Your task to perform on an android device: check storage Image 0: 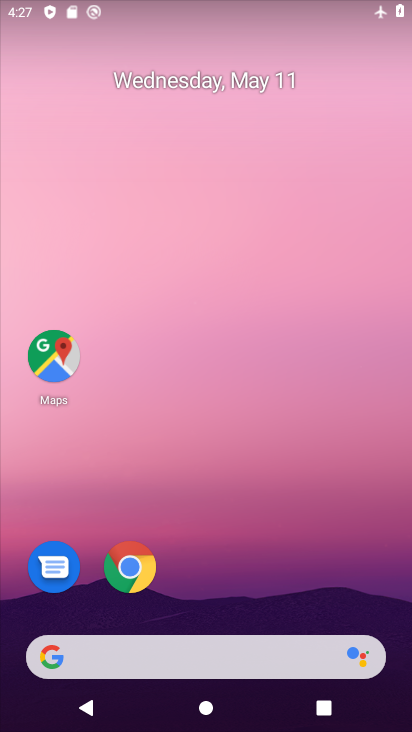
Step 0: drag from (197, 602) to (223, 165)
Your task to perform on an android device: check storage Image 1: 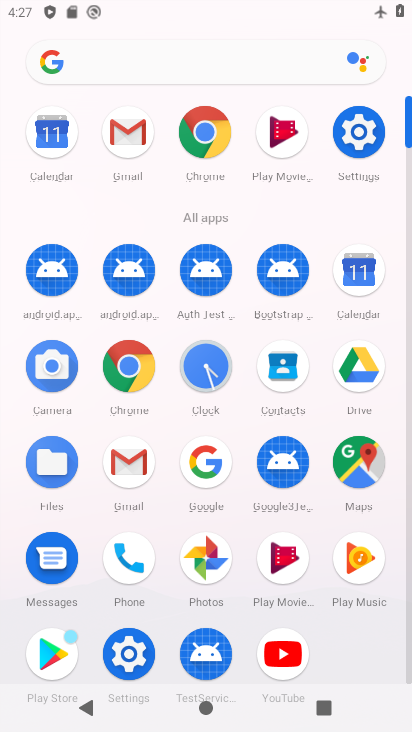
Step 1: click (355, 141)
Your task to perform on an android device: check storage Image 2: 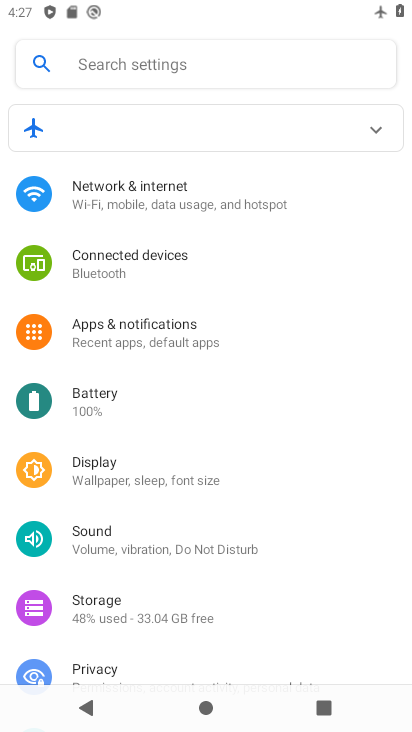
Step 2: click (154, 611)
Your task to perform on an android device: check storage Image 3: 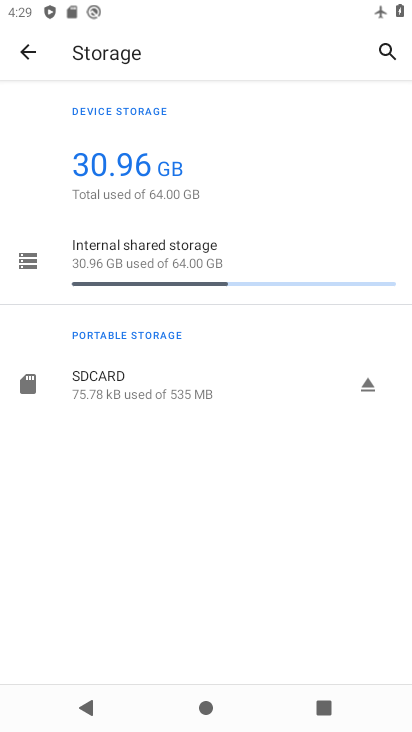
Step 3: task complete